Your task to perform on an android device: Clear the cart on amazon. Add rayovac triple a to the cart on amazon Image 0: 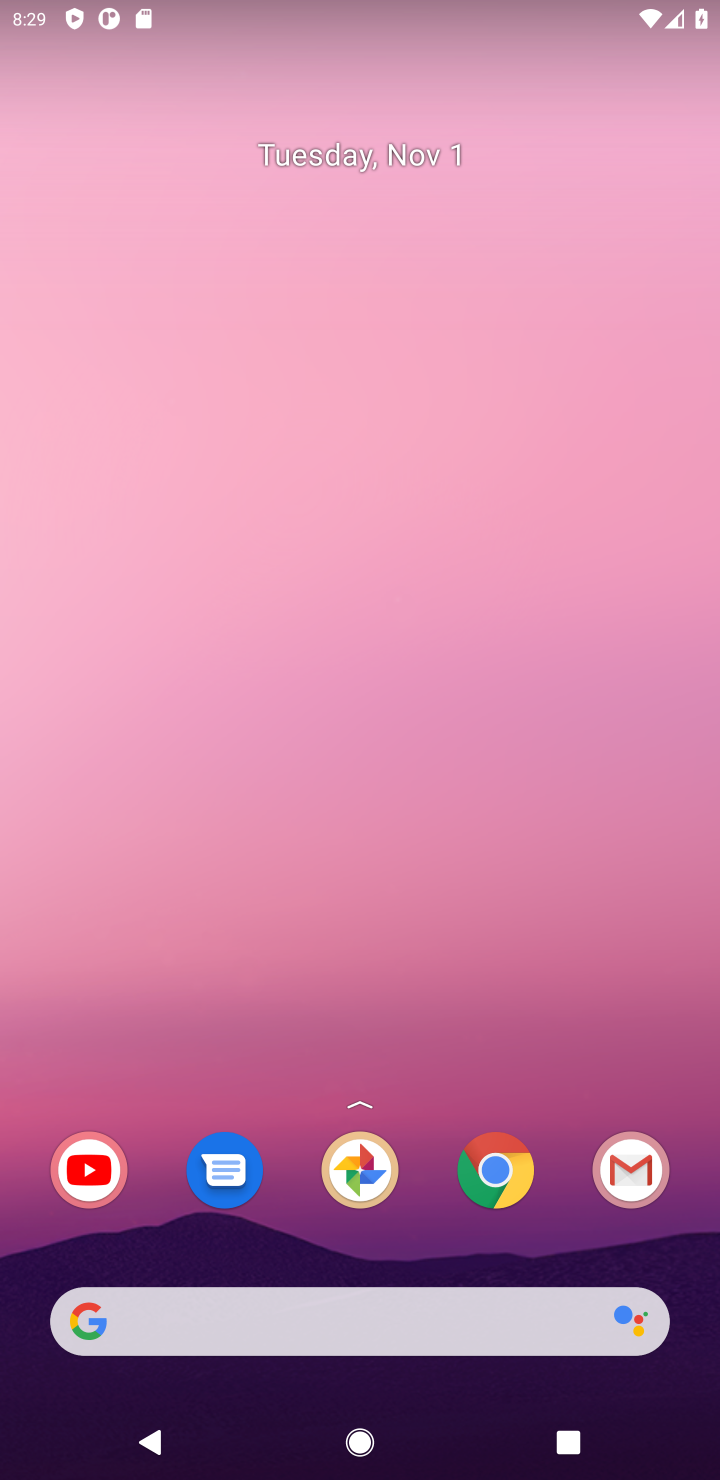
Step 0: press home button
Your task to perform on an android device: Clear the cart on amazon. Add rayovac triple a to the cart on amazon Image 1: 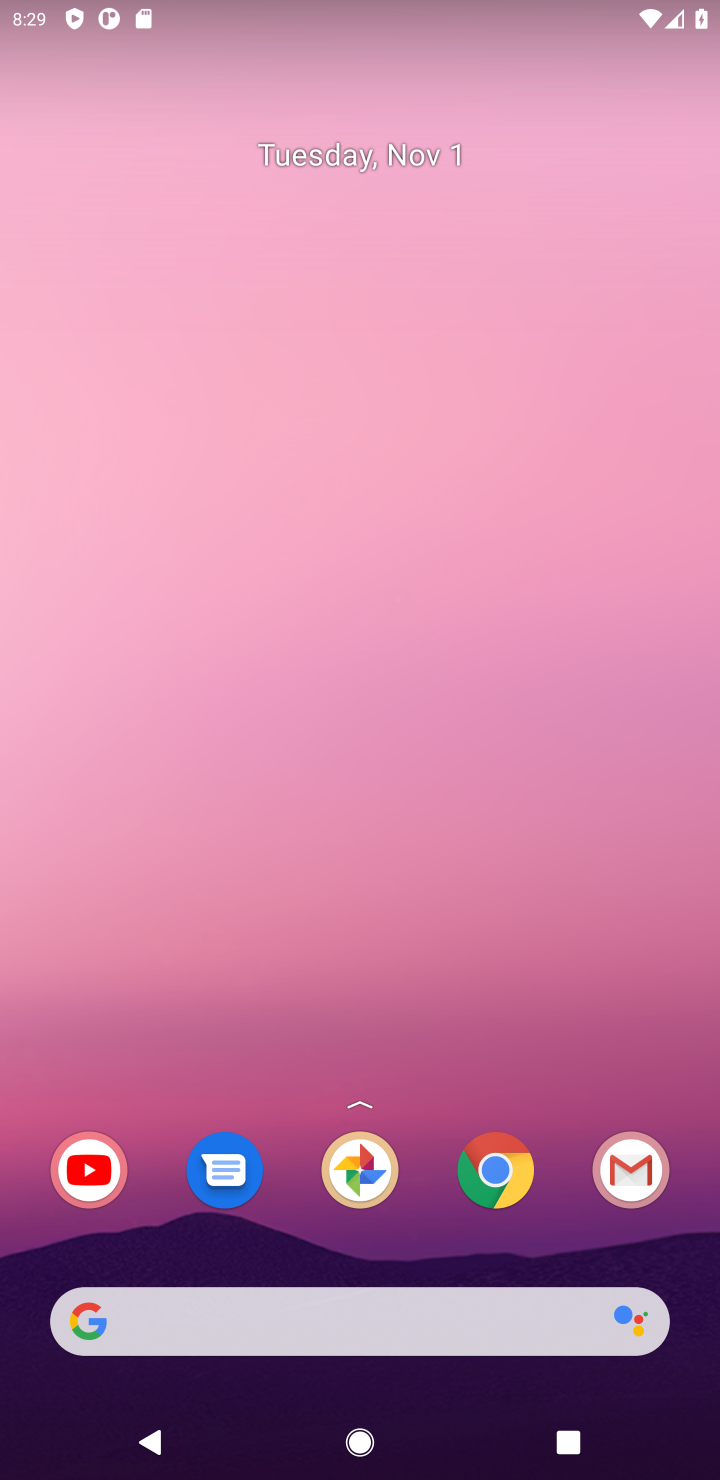
Step 1: click (518, 1175)
Your task to perform on an android device: Clear the cart on amazon. Add rayovac triple a to the cart on amazon Image 2: 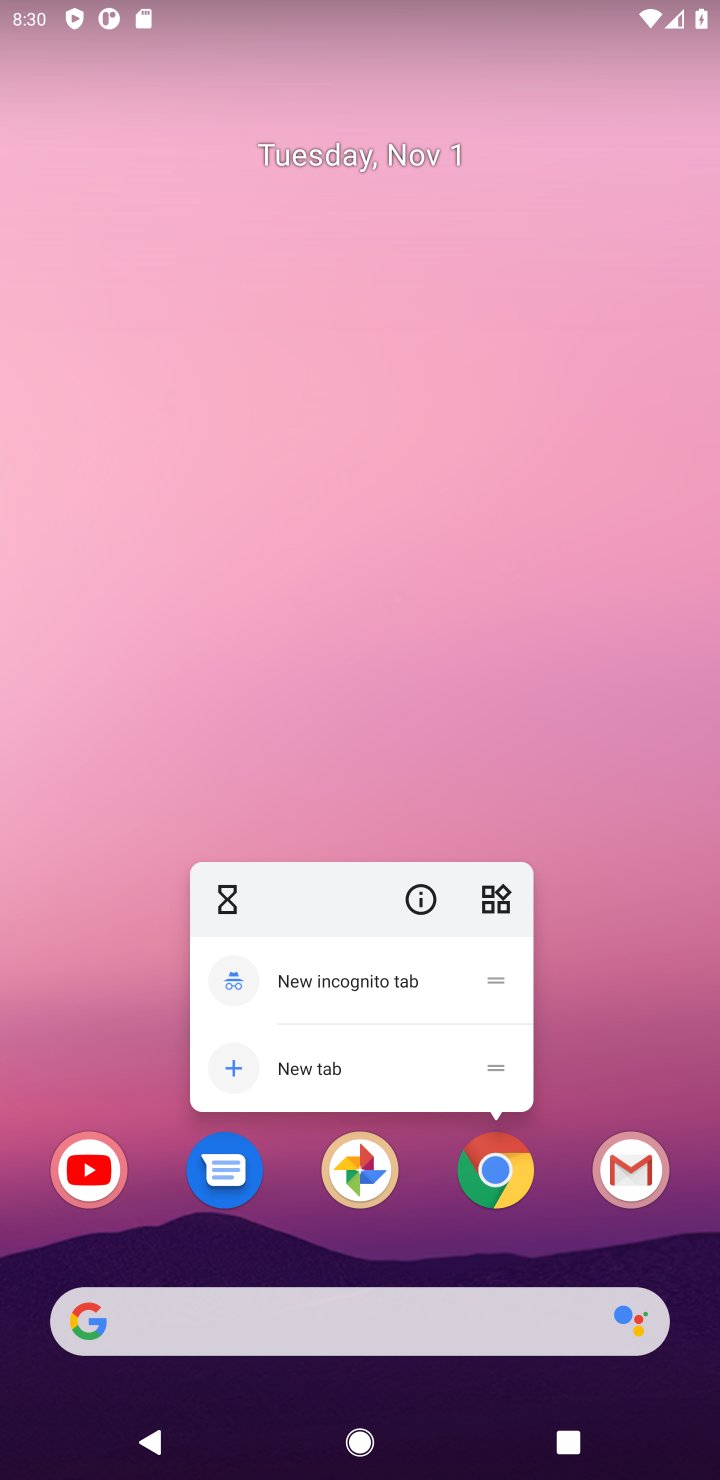
Step 2: click (529, 1176)
Your task to perform on an android device: Clear the cart on amazon. Add rayovac triple a to the cart on amazon Image 3: 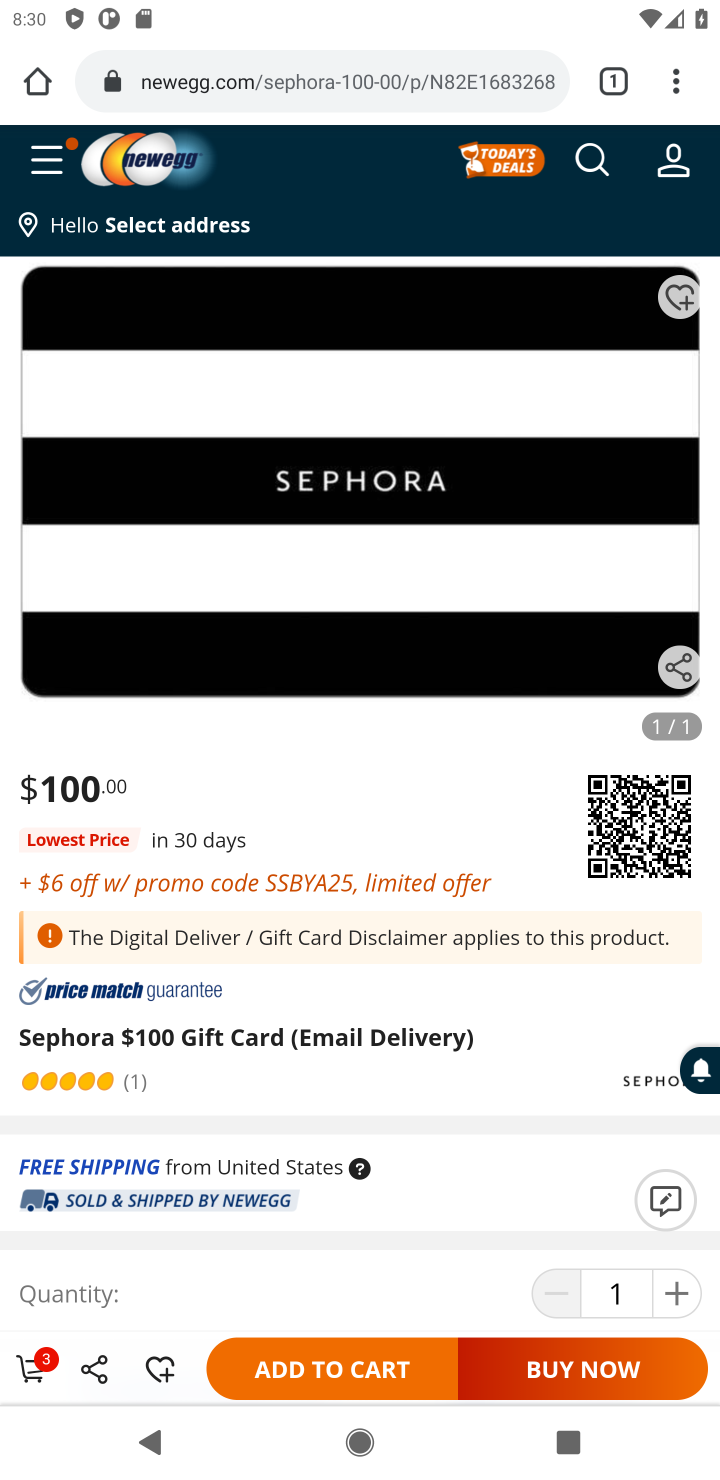
Step 3: click (400, 61)
Your task to perform on an android device: Clear the cart on amazon. Add rayovac triple a to the cart on amazon Image 4: 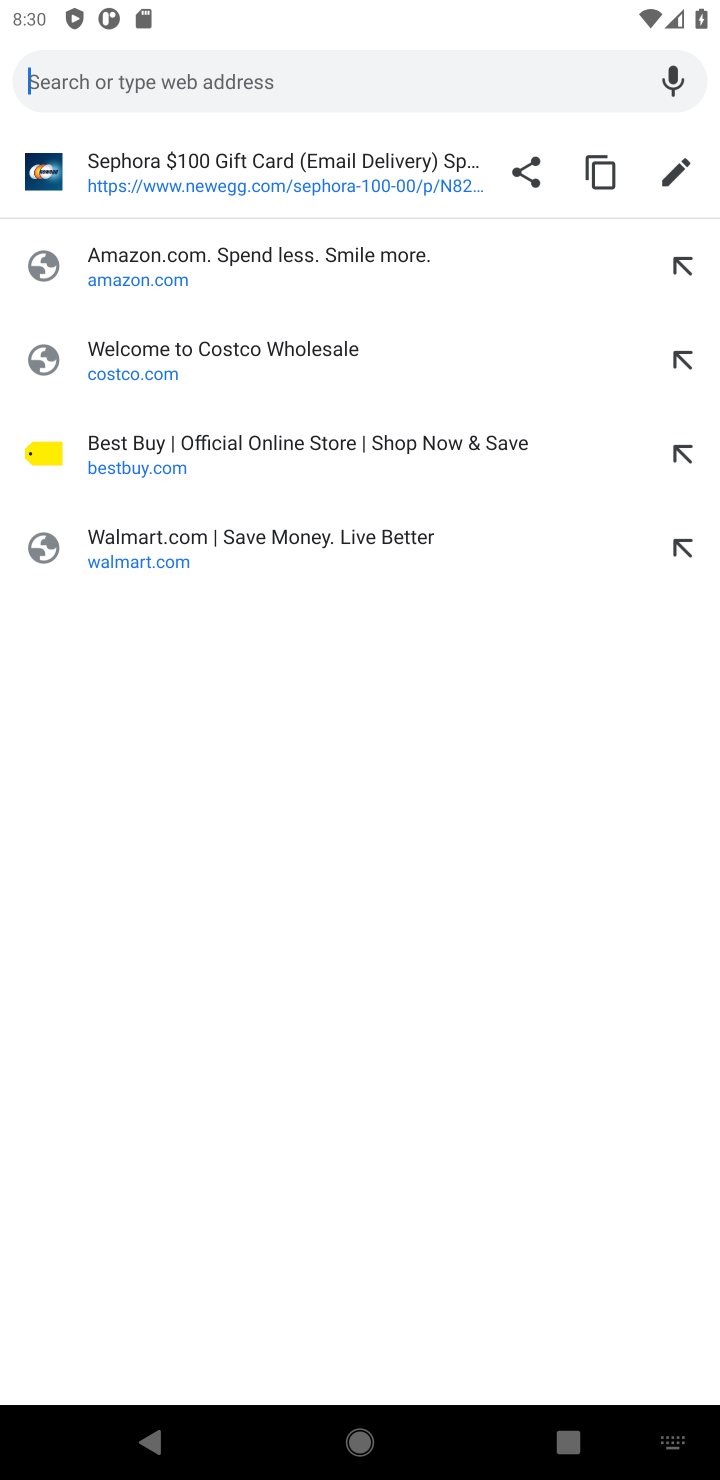
Step 4: type "amazon"
Your task to perform on an android device: Clear the cart on amazon. Add rayovac triple a to the cart on amazon Image 5: 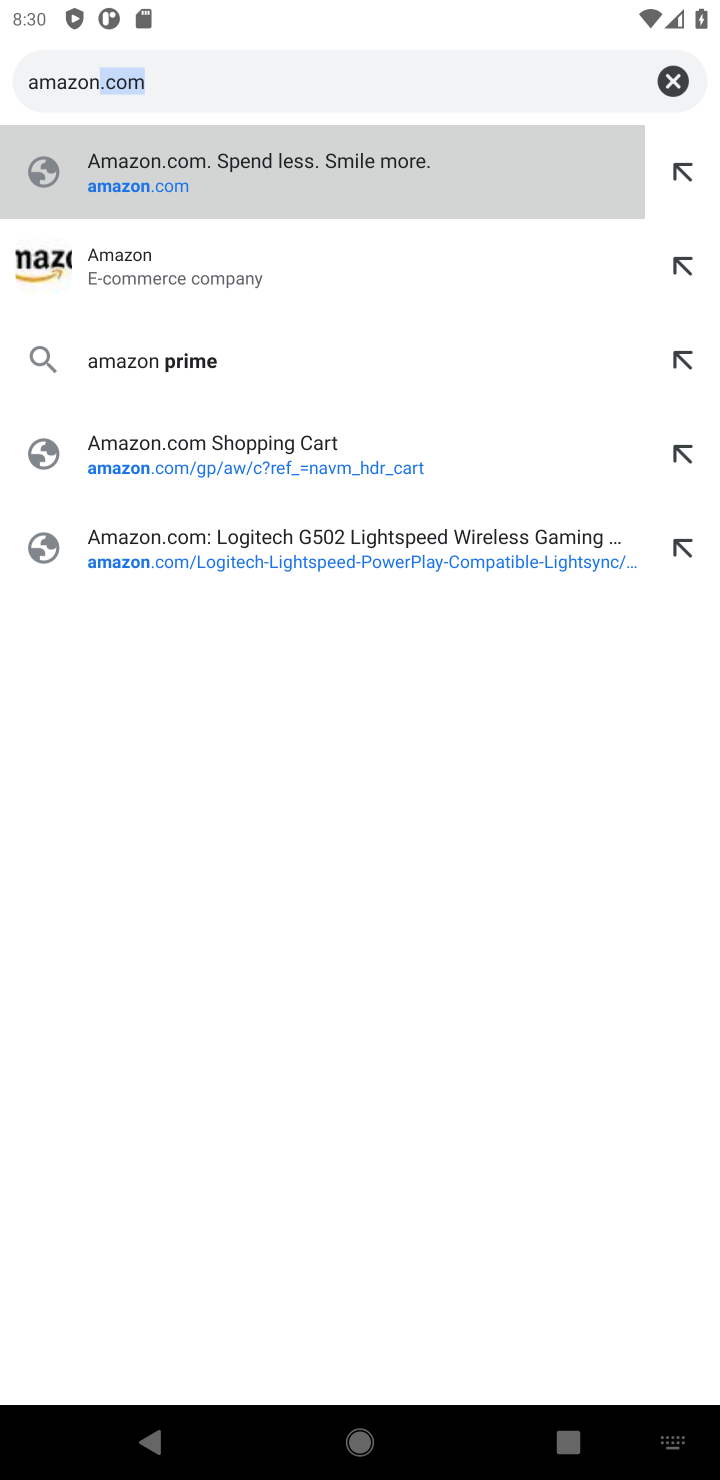
Step 5: type ""
Your task to perform on an android device: Clear the cart on amazon. Add rayovac triple a to the cart on amazon Image 6: 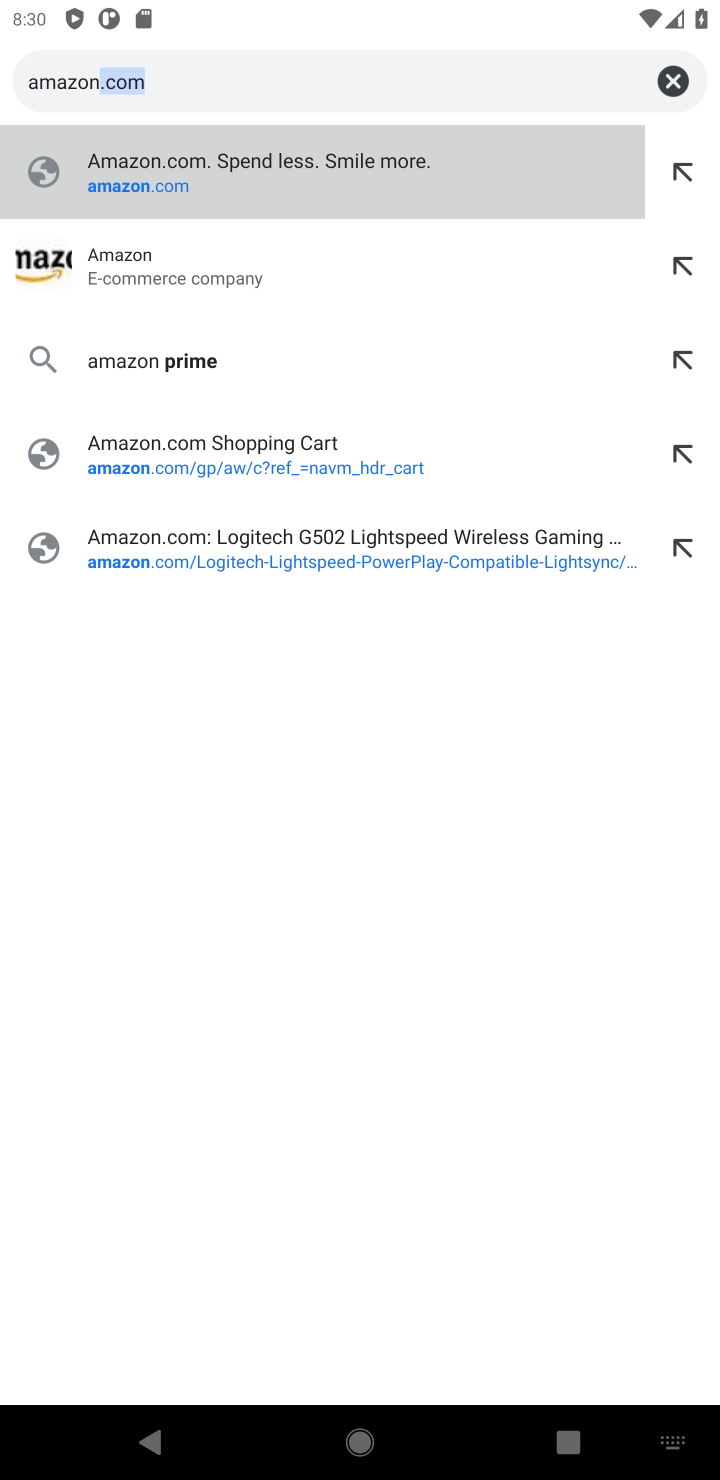
Step 6: press enter
Your task to perform on an android device: Clear the cart on amazon. Add rayovac triple a to the cart on amazon Image 7: 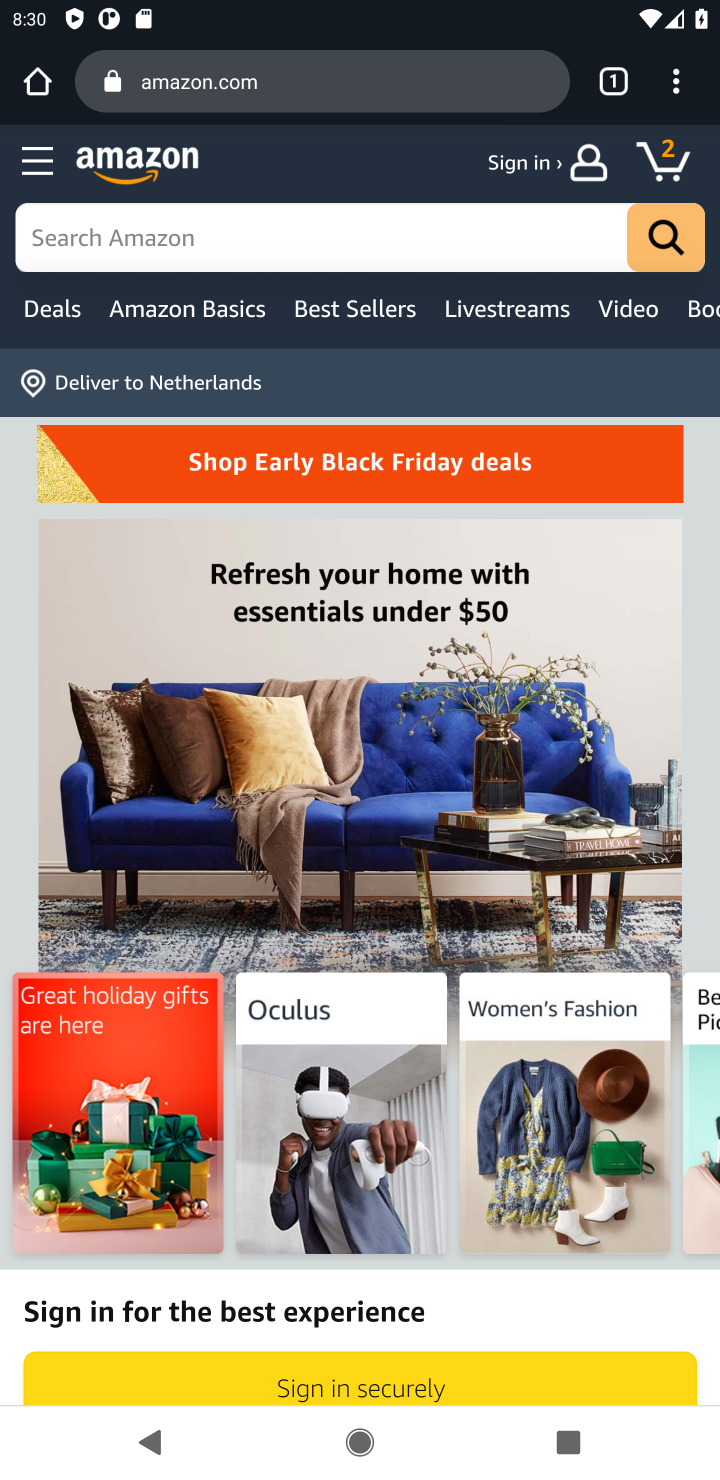
Step 7: click (365, 223)
Your task to perform on an android device: Clear the cart on amazon. Add rayovac triple a to the cart on amazon Image 8: 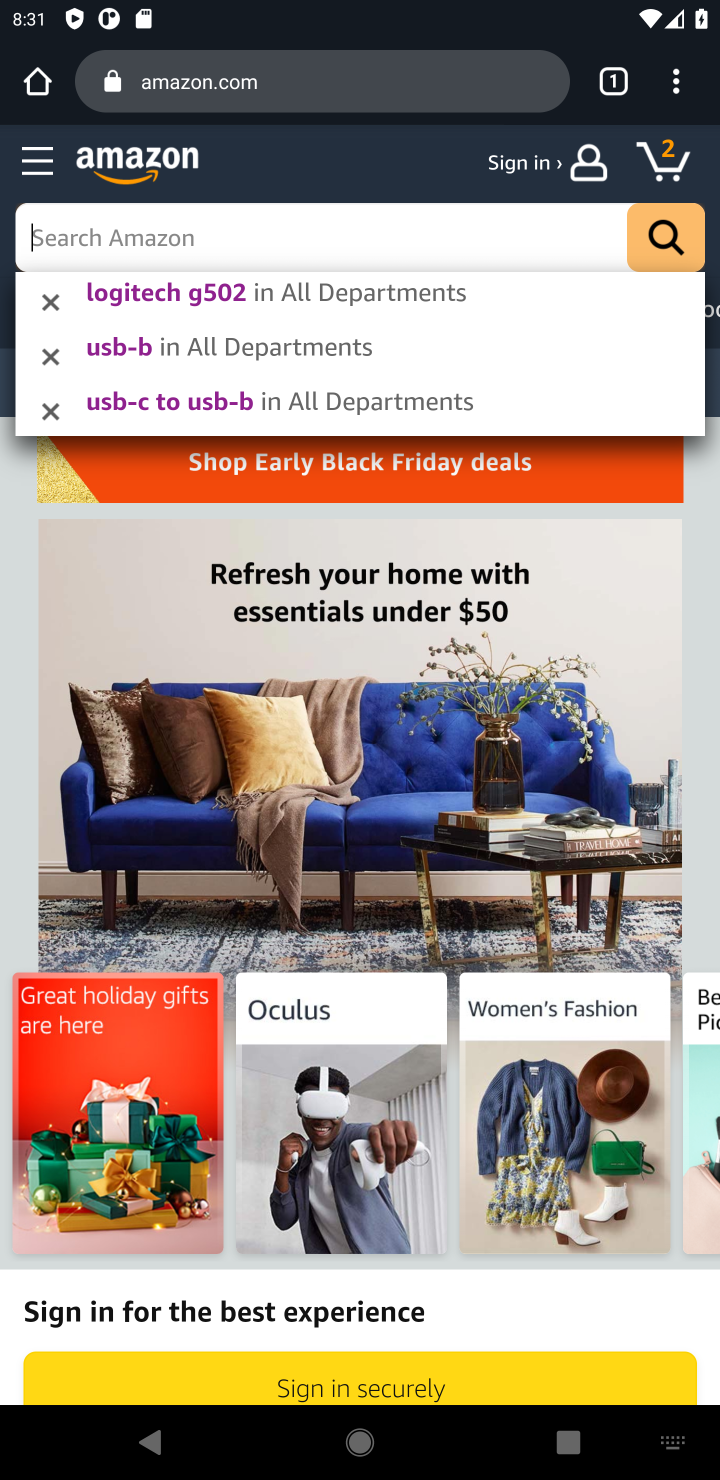
Step 8: drag from (460, 1070) to (541, 607)
Your task to perform on an android device: Clear the cart on amazon. Add rayovac triple a to the cart on amazon Image 9: 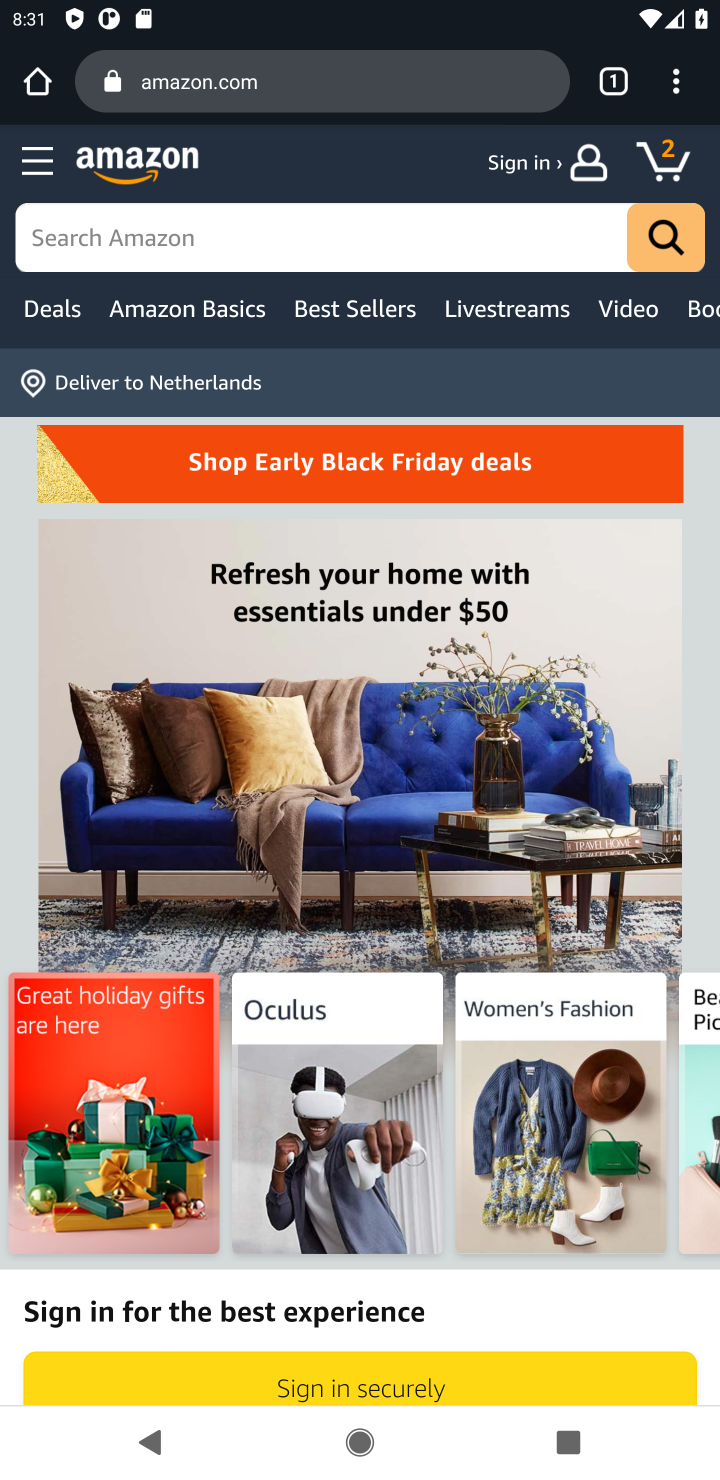
Step 9: click (216, 247)
Your task to perform on an android device: Clear the cart on amazon. Add rayovac triple a to the cart on amazon Image 10: 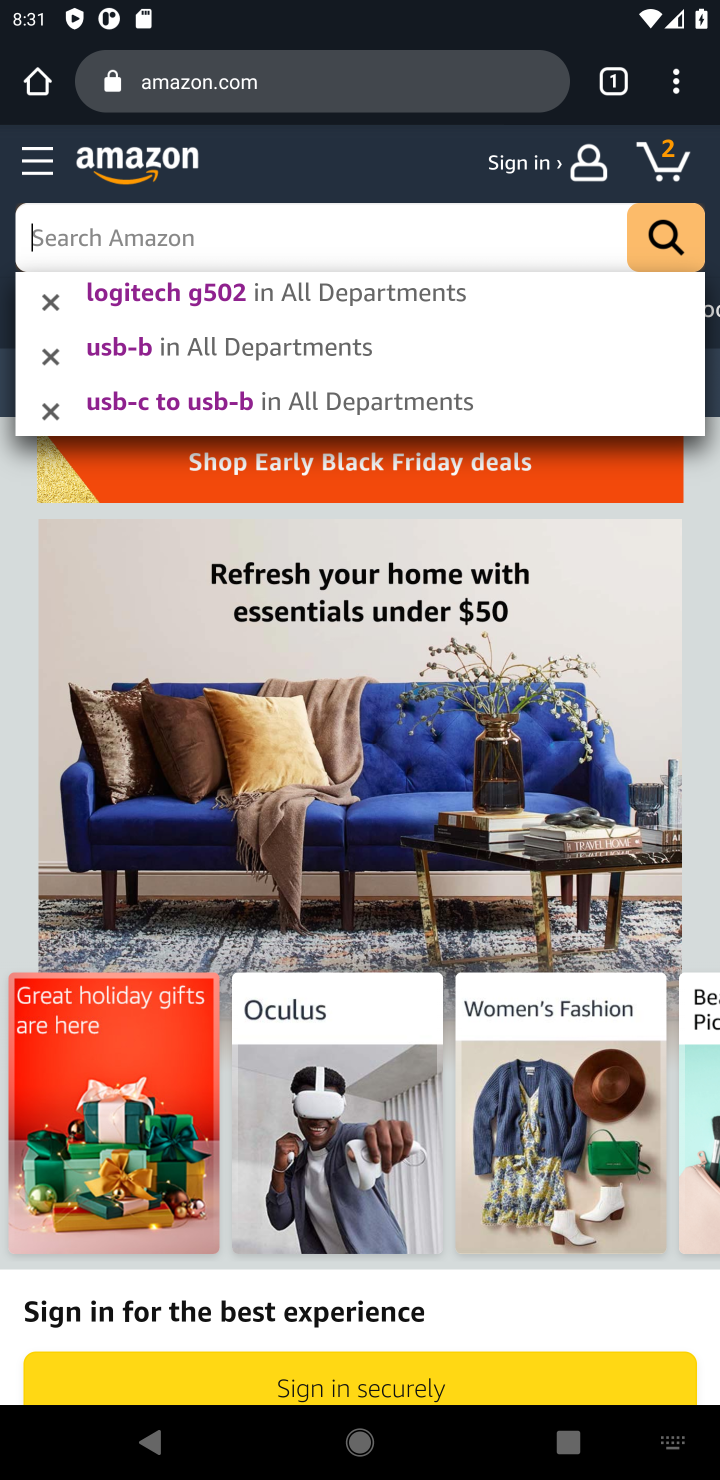
Step 10: type "rayovac triple a"
Your task to perform on an android device: Clear the cart on amazon. Add rayovac triple a to the cart on amazon Image 11: 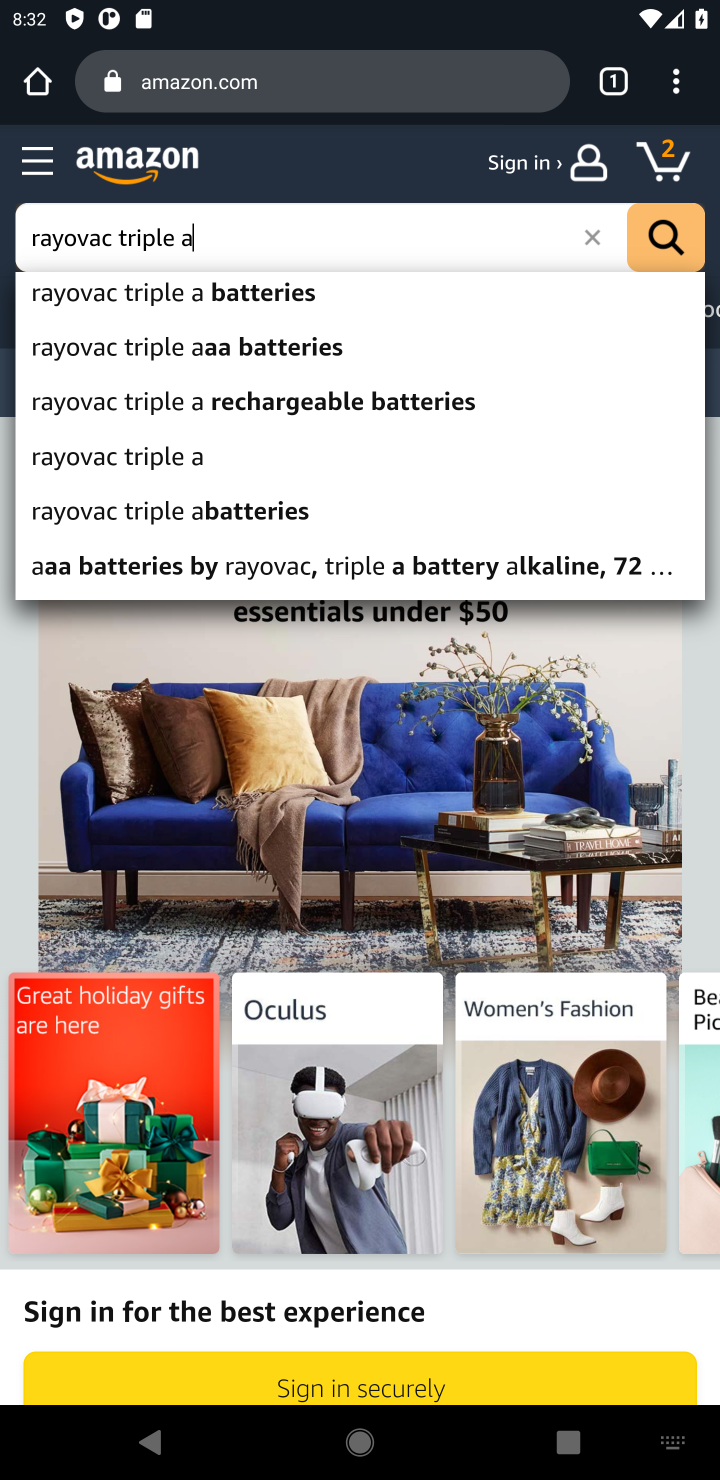
Step 11: press enter
Your task to perform on an android device: Clear the cart on amazon. Add rayovac triple a to the cart on amazon Image 12: 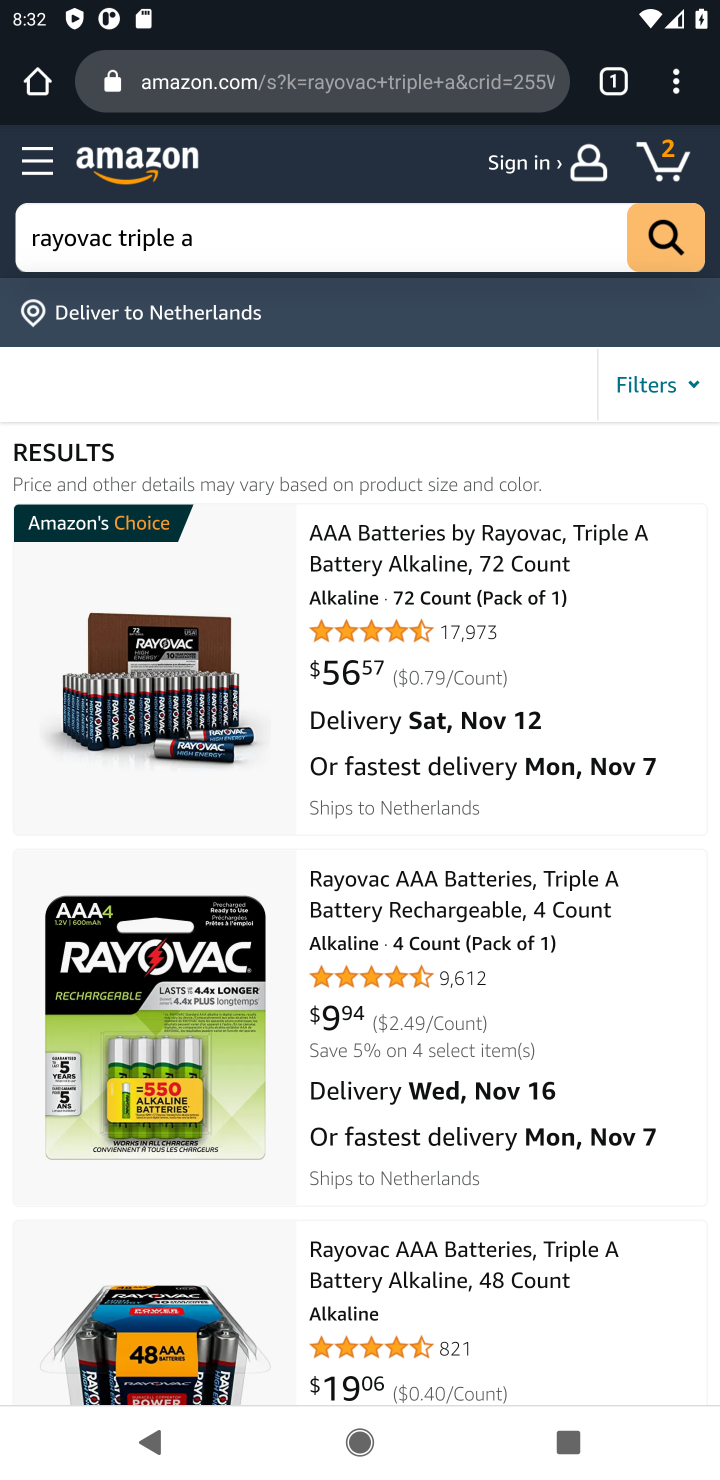
Step 12: click (499, 596)
Your task to perform on an android device: Clear the cart on amazon. Add rayovac triple a to the cart on amazon Image 13: 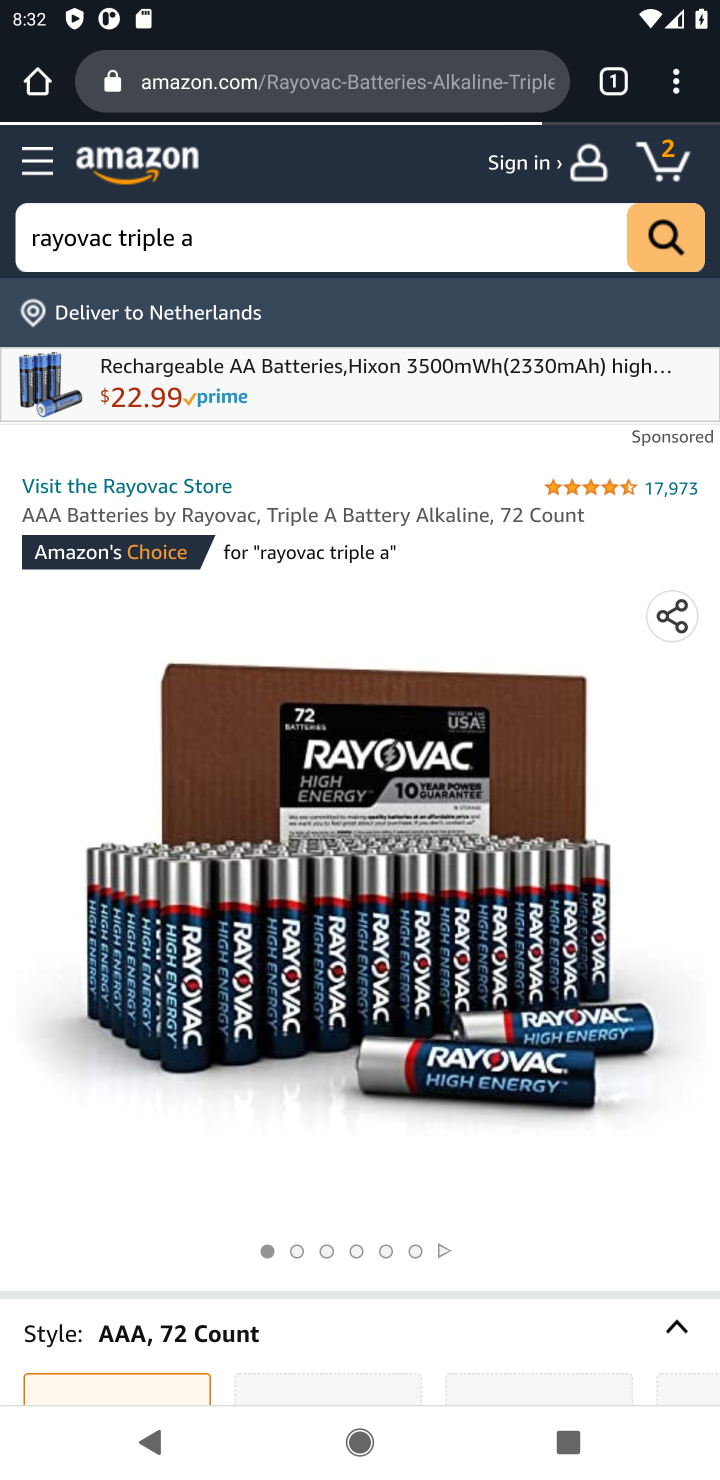
Step 13: drag from (396, 1218) to (401, 477)
Your task to perform on an android device: Clear the cart on amazon. Add rayovac triple a to the cart on amazon Image 14: 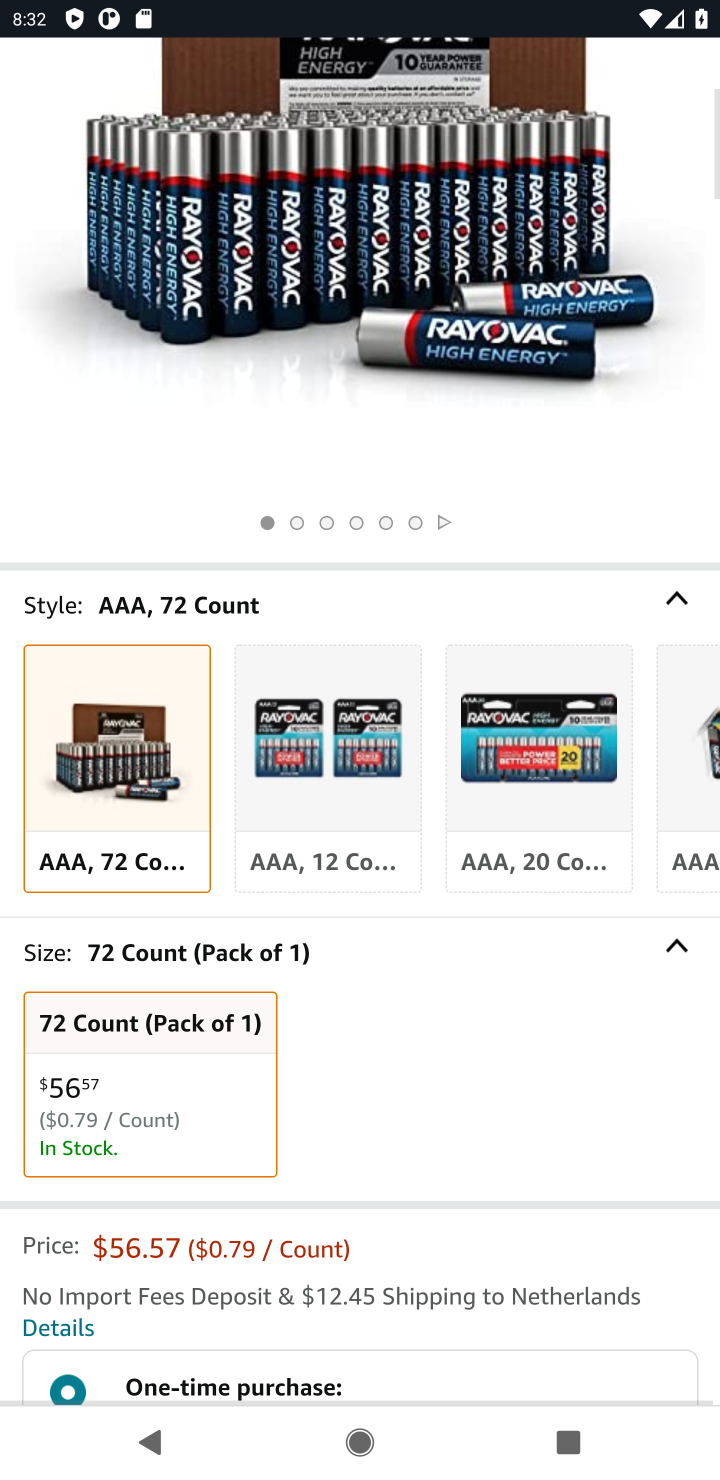
Step 14: drag from (492, 1236) to (450, 624)
Your task to perform on an android device: Clear the cart on amazon. Add rayovac triple a to the cart on amazon Image 15: 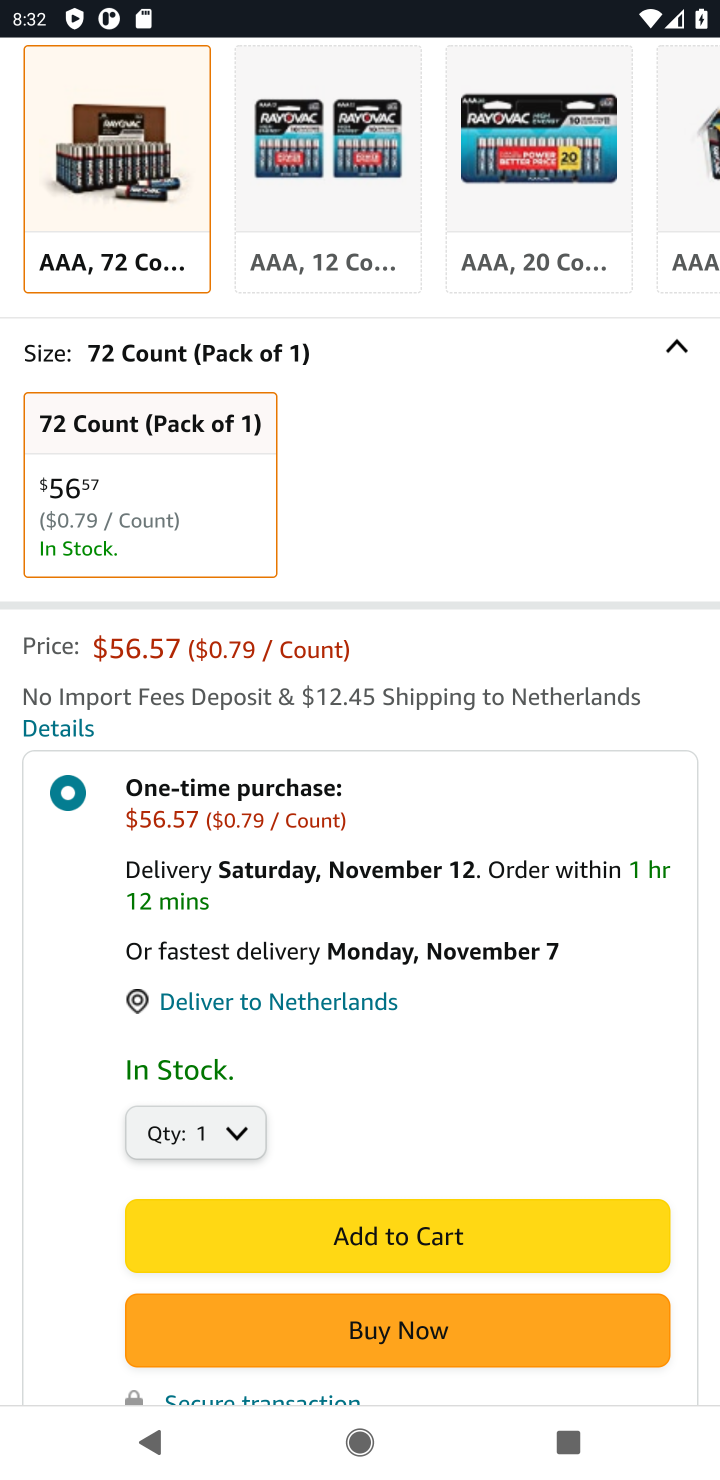
Step 15: drag from (446, 1249) to (449, 1099)
Your task to perform on an android device: Clear the cart on amazon. Add rayovac triple a to the cart on amazon Image 16: 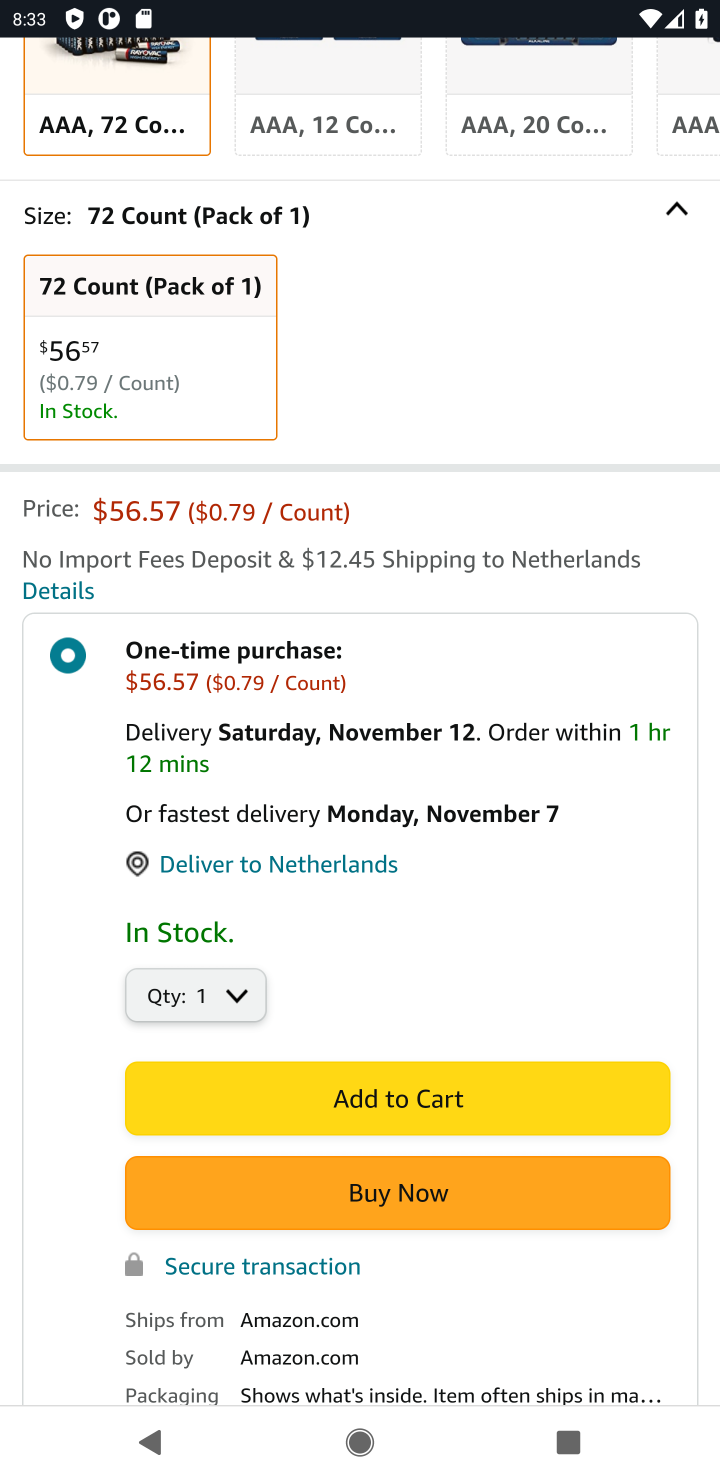
Step 16: drag from (436, 353) to (537, 1031)
Your task to perform on an android device: Clear the cart on amazon. Add rayovac triple a to the cart on amazon Image 17: 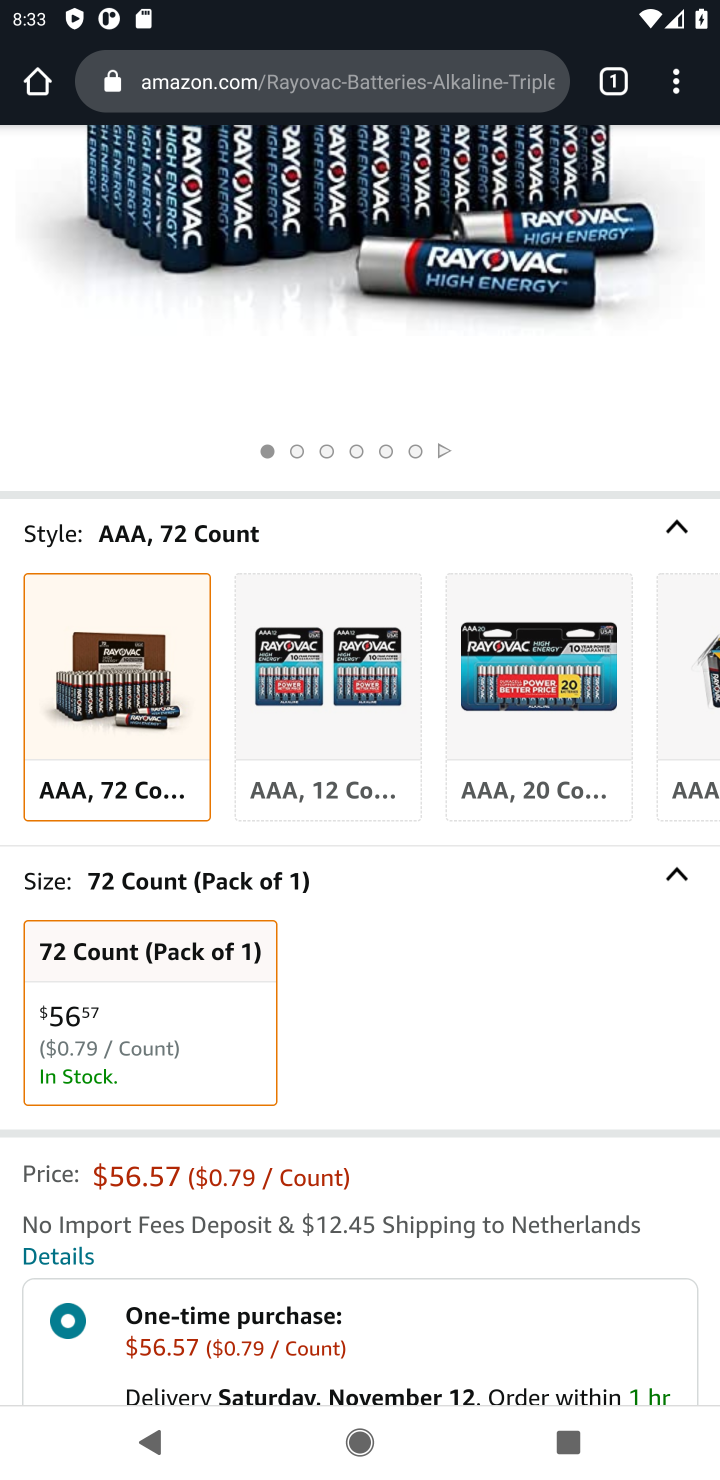
Step 17: drag from (542, 507) to (545, 1043)
Your task to perform on an android device: Clear the cart on amazon. Add rayovac triple a to the cart on amazon Image 18: 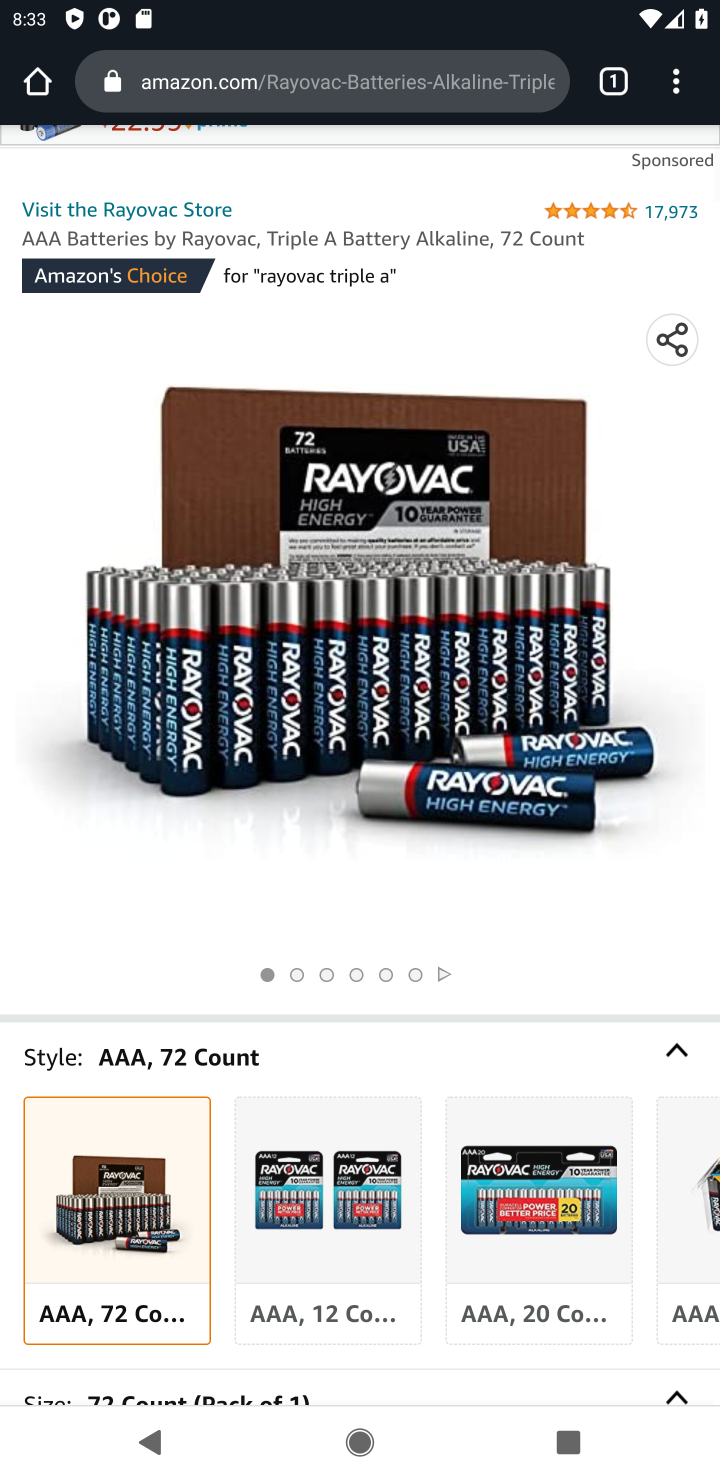
Step 18: drag from (512, 314) to (572, 966)
Your task to perform on an android device: Clear the cart on amazon. Add rayovac triple a to the cart on amazon Image 19: 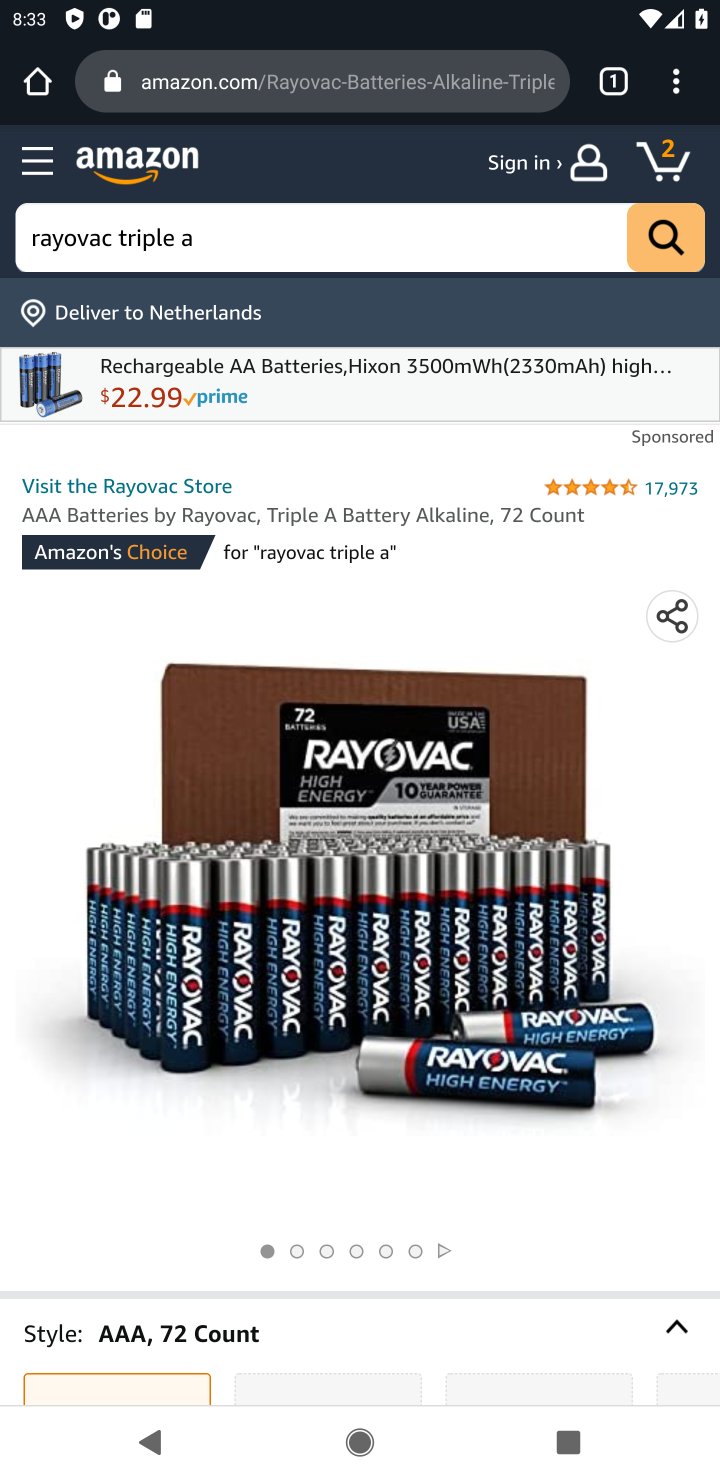
Step 19: click (667, 167)
Your task to perform on an android device: Clear the cart on amazon. Add rayovac triple a to the cart on amazon Image 20: 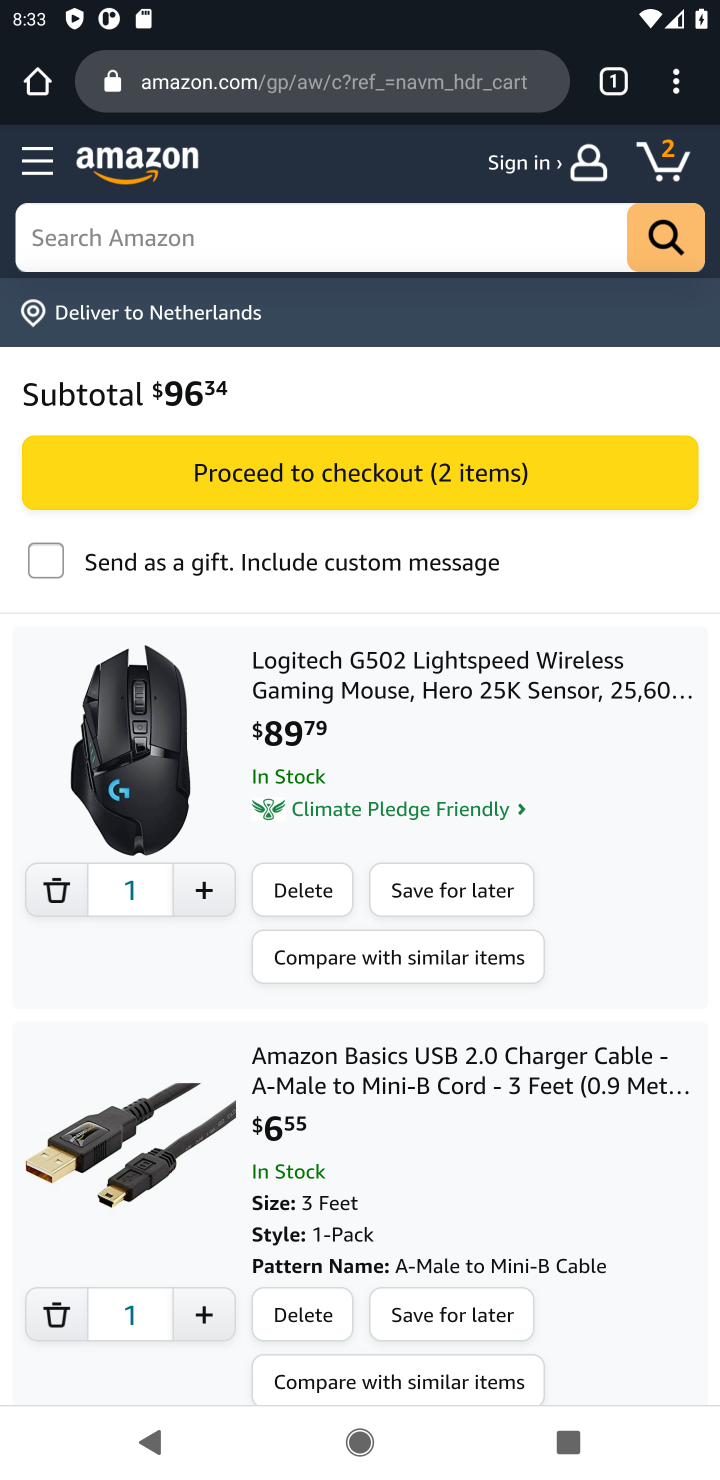
Step 20: click (55, 894)
Your task to perform on an android device: Clear the cart on amazon. Add rayovac triple a to the cart on amazon Image 21: 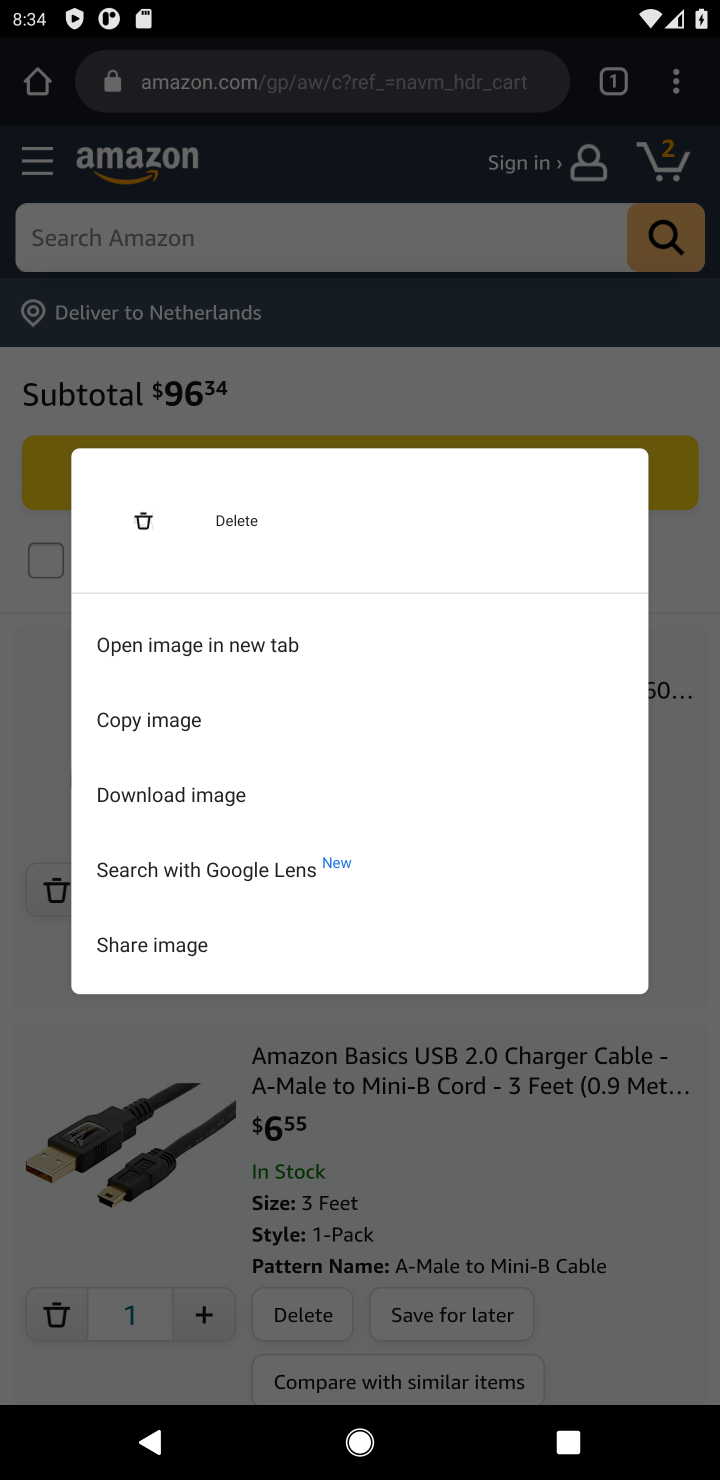
Step 21: click (344, 1288)
Your task to perform on an android device: Clear the cart on amazon. Add rayovac triple a to the cart on amazon Image 22: 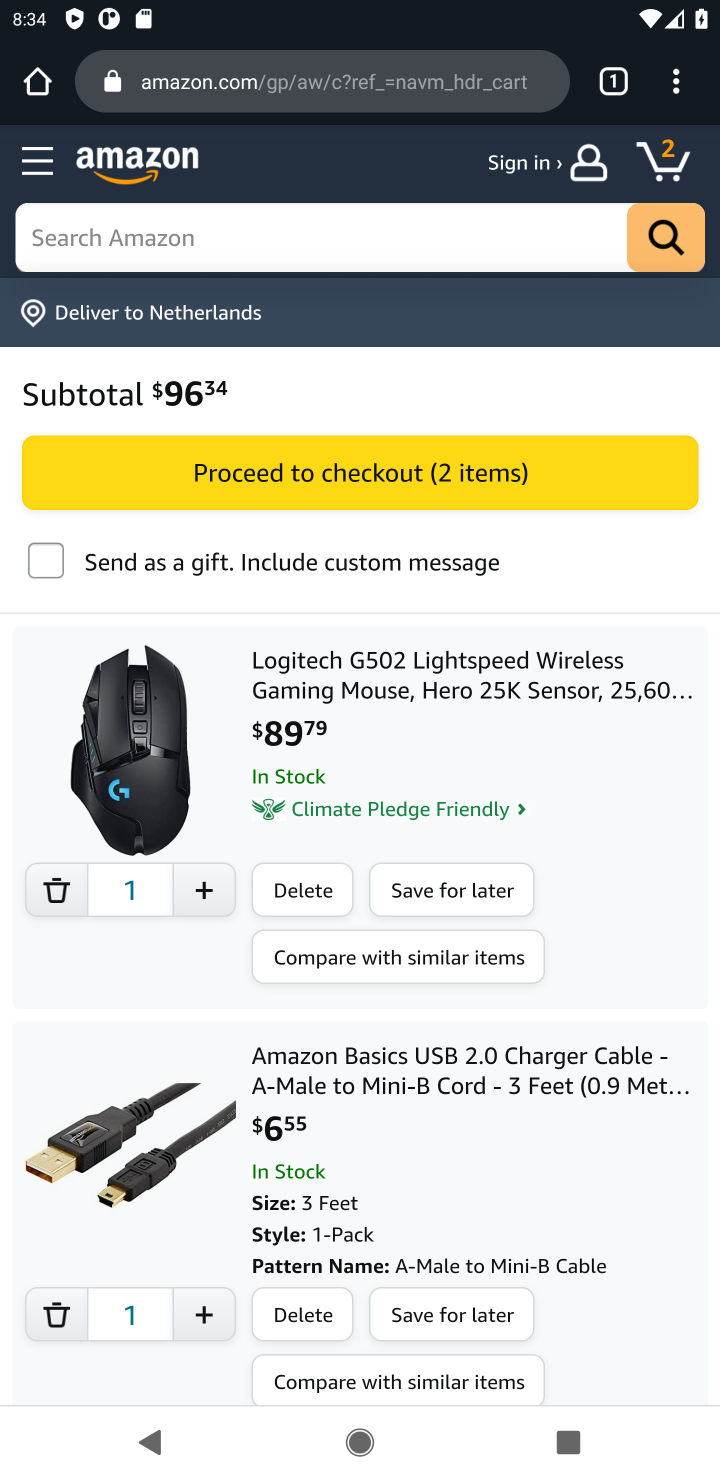
Step 22: click (54, 883)
Your task to perform on an android device: Clear the cart on amazon. Add rayovac triple a to the cart on amazon Image 23: 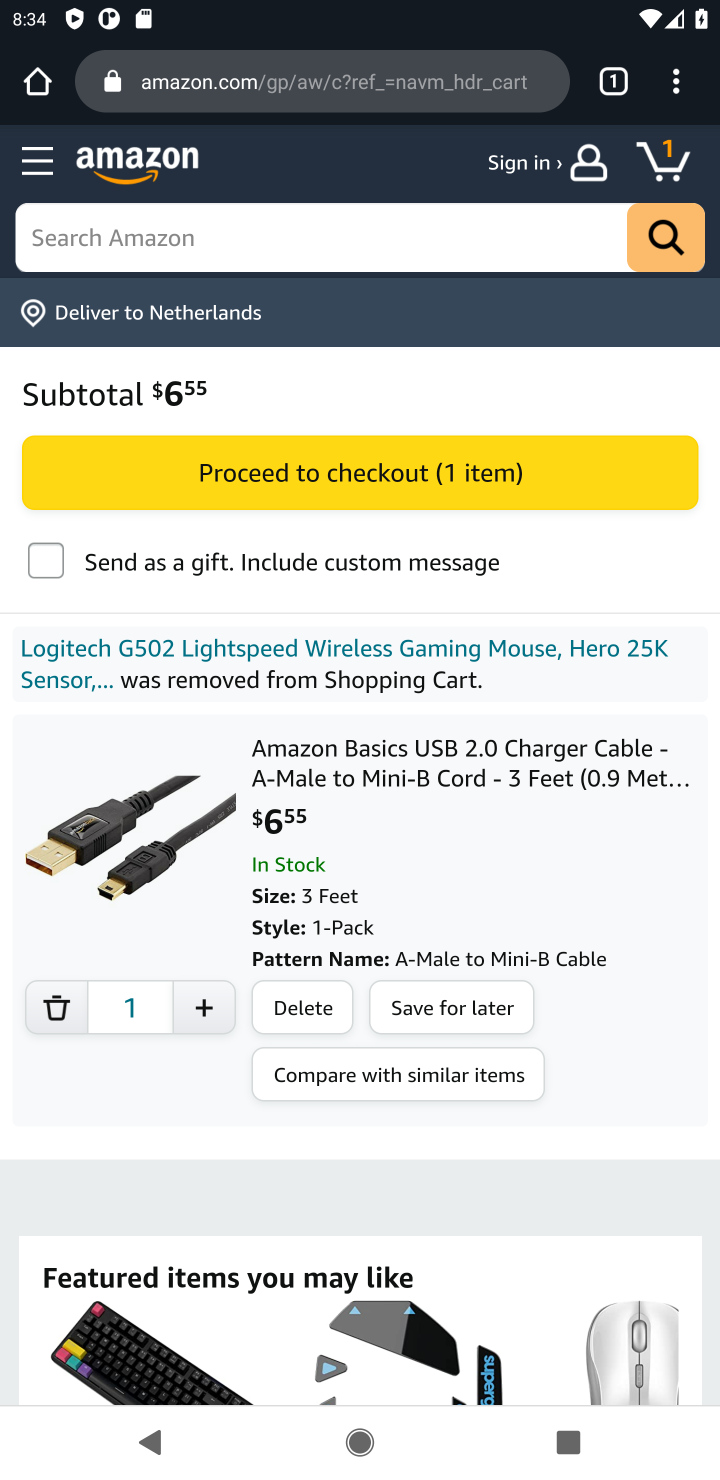
Step 23: click (59, 1010)
Your task to perform on an android device: Clear the cart on amazon. Add rayovac triple a to the cart on amazon Image 24: 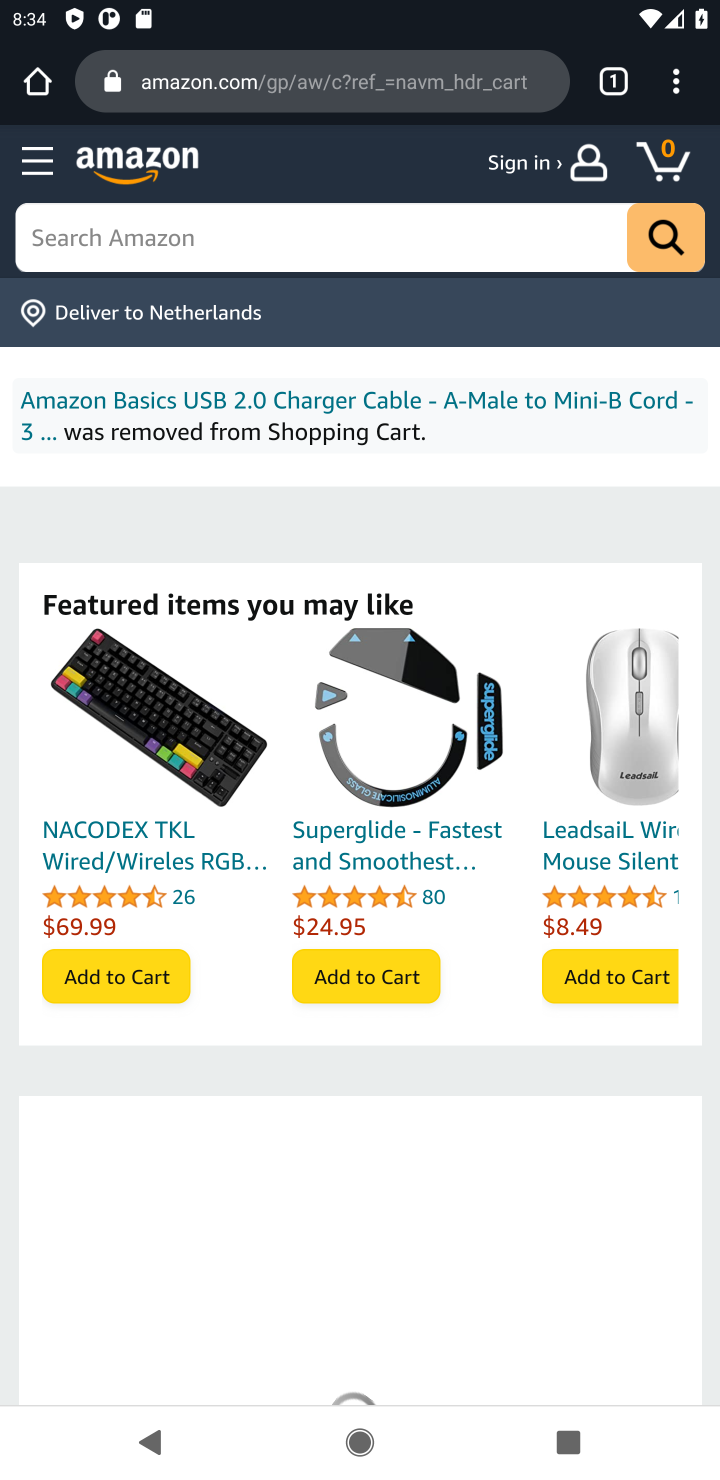
Step 24: click (270, 256)
Your task to perform on an android device: Clear the cart on amazon. Add rayovac triple a to the cart on amazon Image 25: 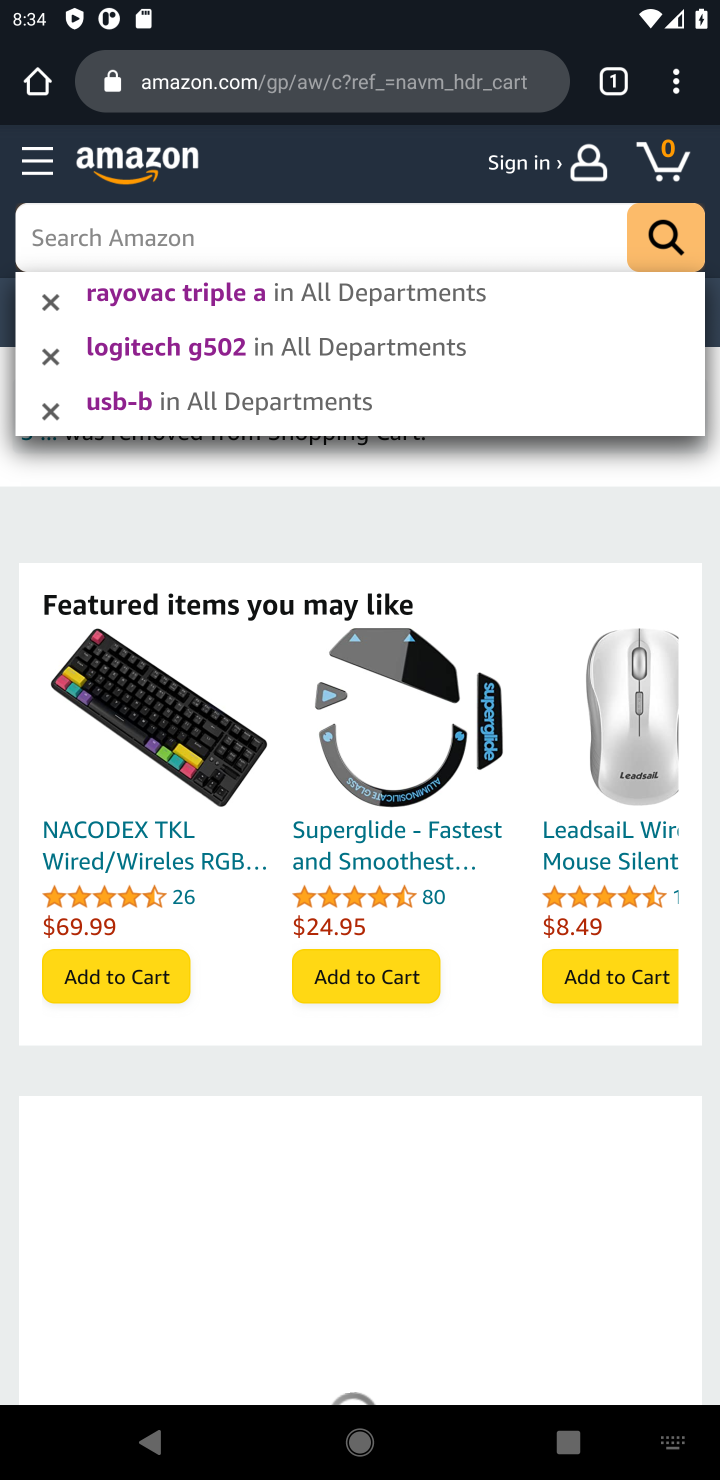
Step 25: type "rayovac triple a "
Your task to perform on an android device: Clear the cart on amazon. Add rayovac triple a to the cart on amazon Image 26: 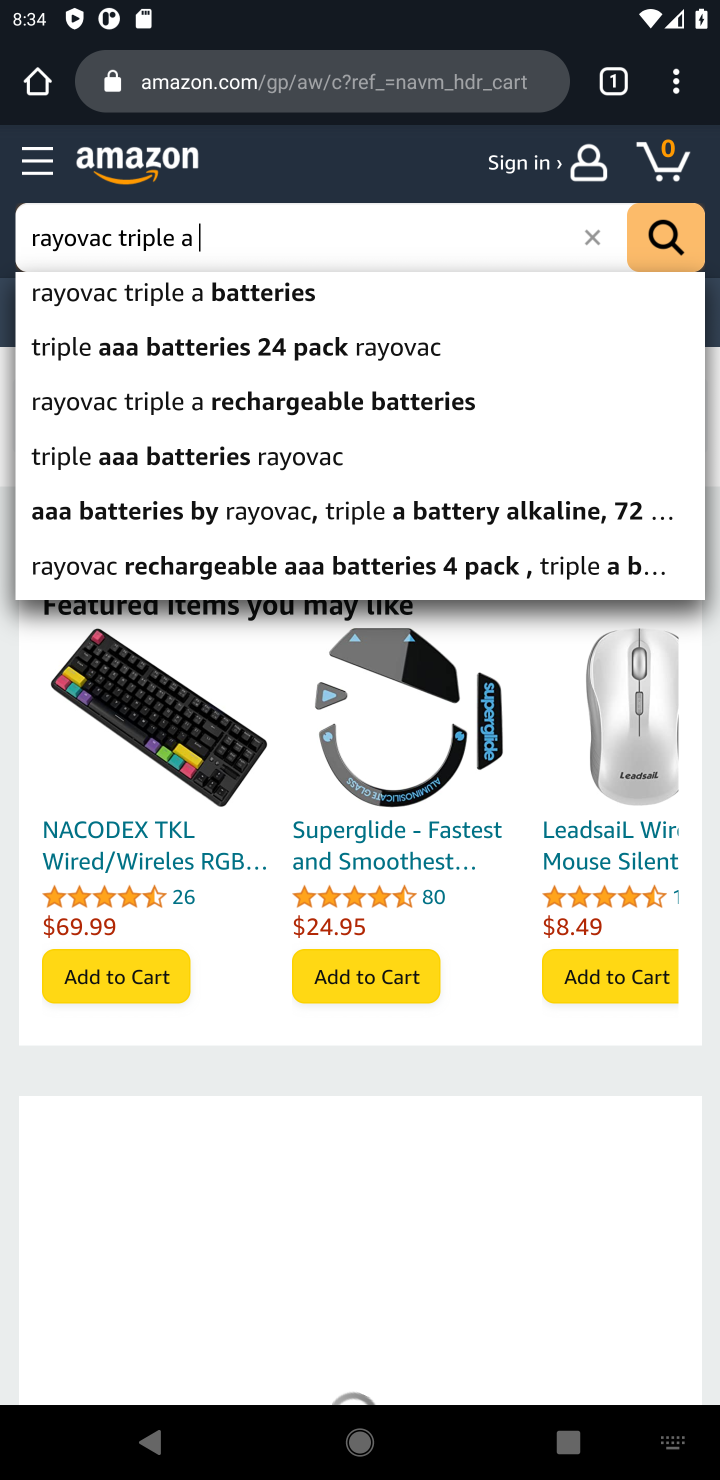
Step 26: click (668, 219)
Your task to perform on an android device: Clear the cart on amazon. Add rayovac triple a to the cart on amazon Image 27: 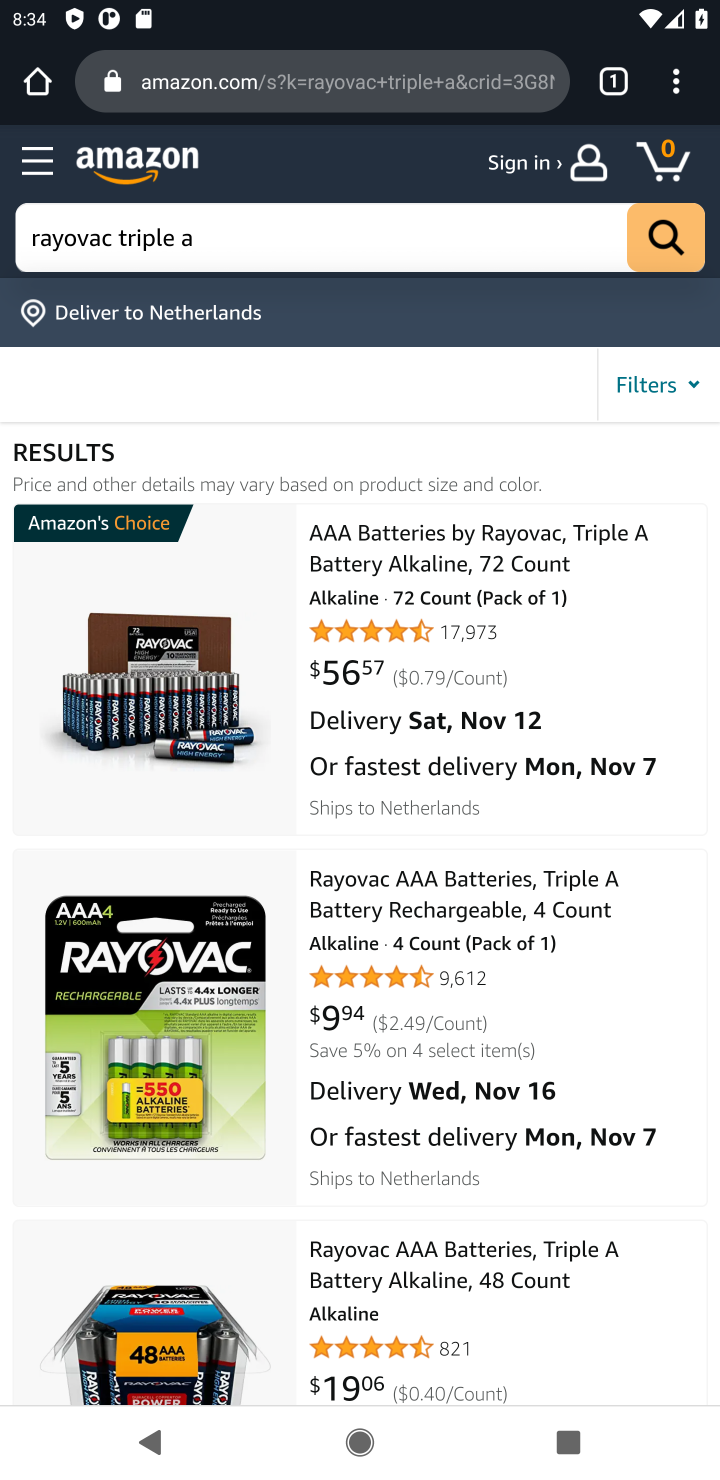
Step 27: click (454, 591)
Your task to perform on an android device: Clear the cart on amazon. Add rayovac triple a to the cart on amazon Image 28: 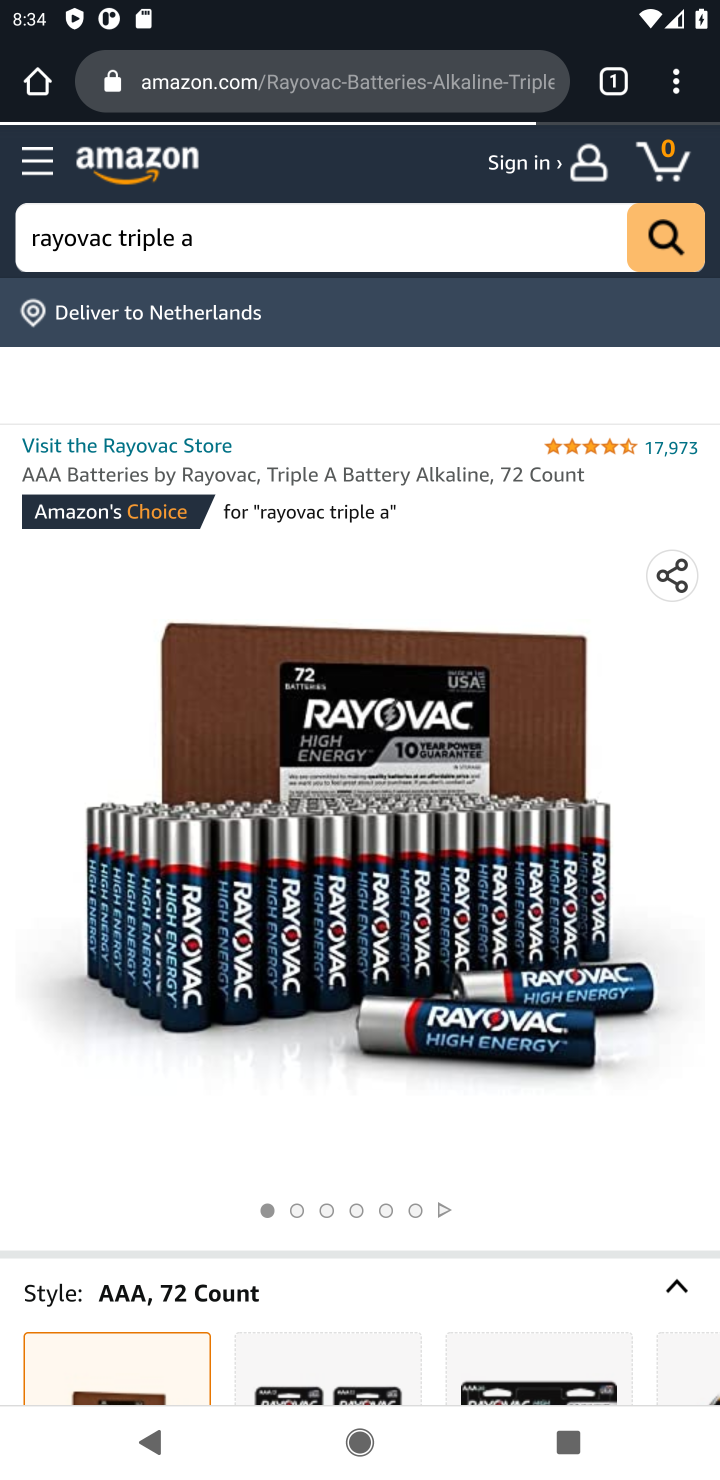
Step 28: drag from (552, 1024) to (478, 105)
Your task to perform on an android device: Clear the cart on amazon. Add rayovac triple a to the cart on amazon Image 29: 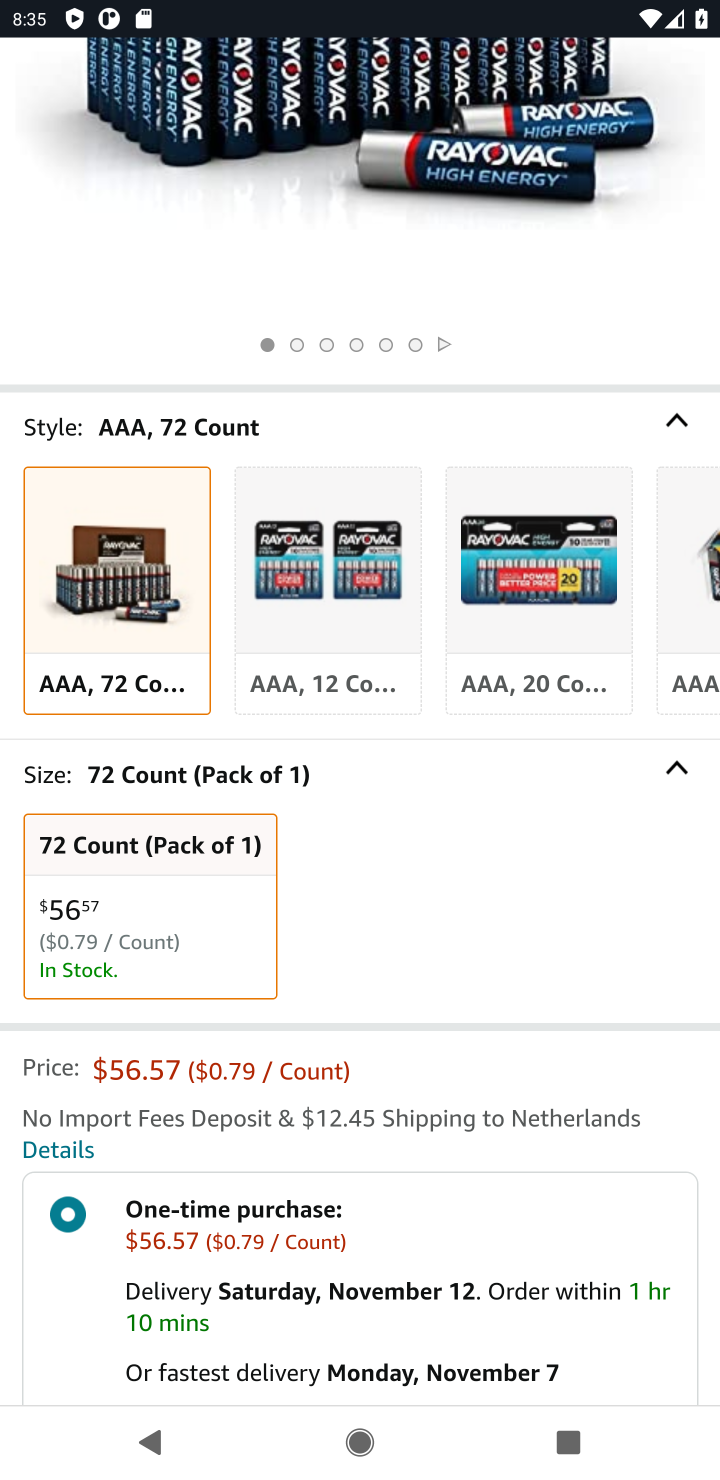
Step 29: drag from (482, 872) to (536, 230)
Your task to perform on an android device: Clear the cart on amazon. Add rayovac triple a to the cart on amazon Image 30: 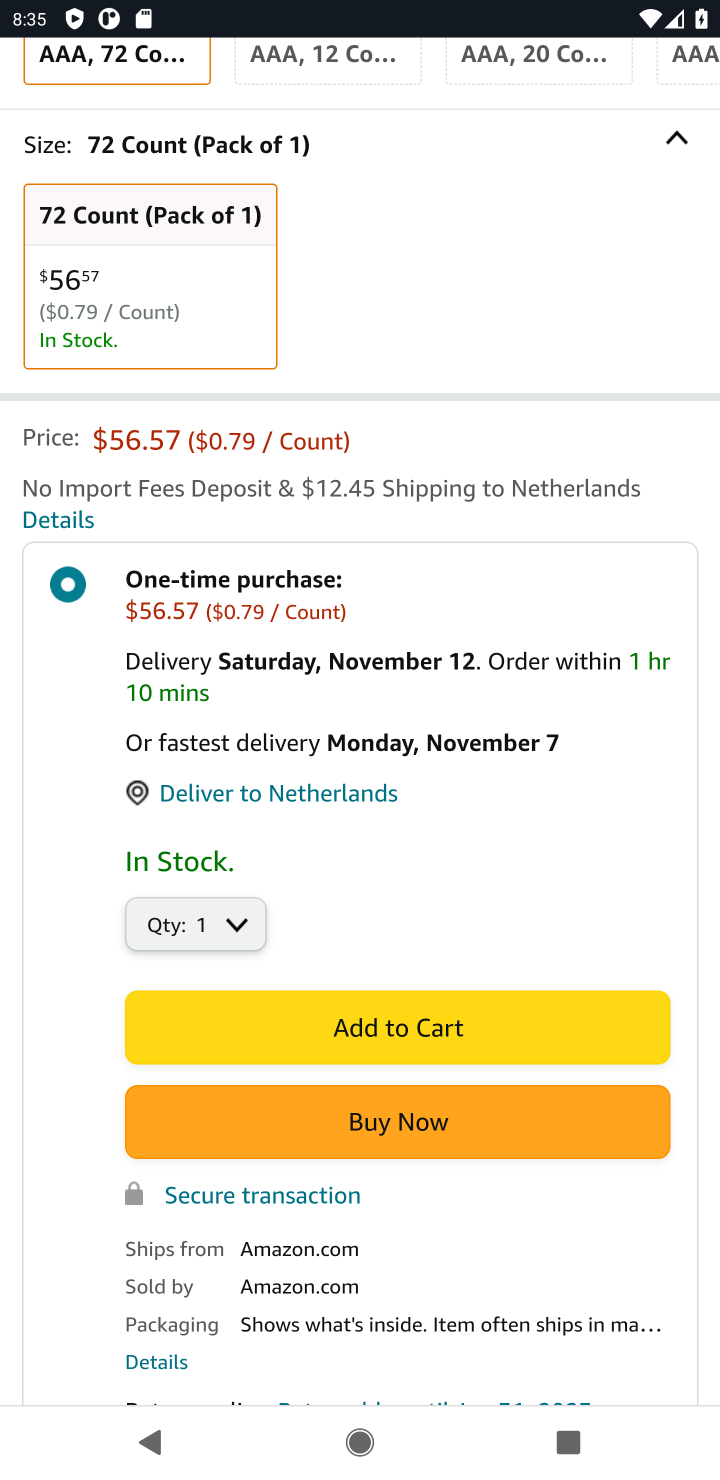
Step 30: click (427, 1030)
Your task to perform on an android device: Clear the cart on amazon. Add rayovac triple a to the cart on amazon Image 31: 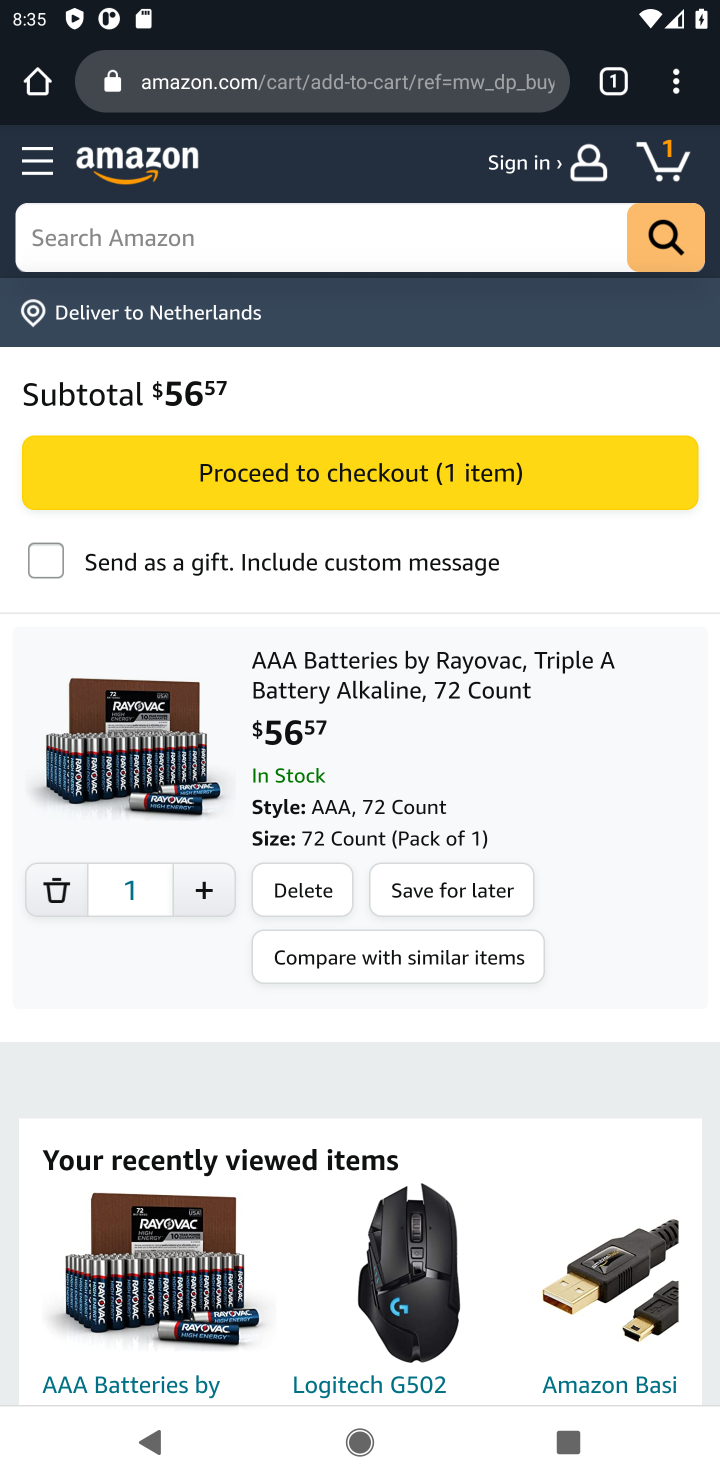
Step 31: task complete